Your task to perform on an android device: turn off data saver in the chrome app Image 0: 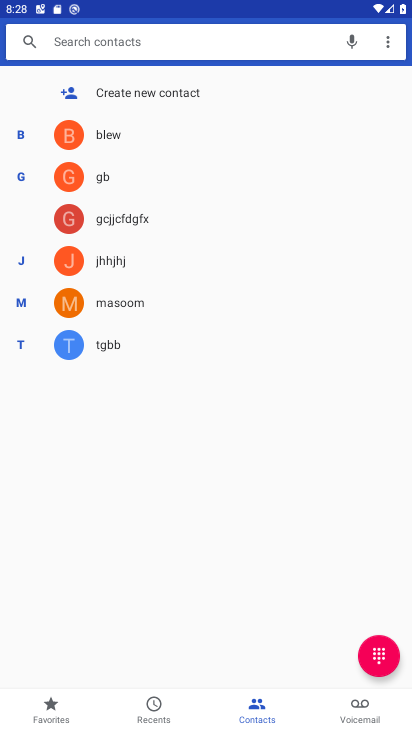
Step 0: press home button
Your task to perform on an android device: turn off data saver in the chrome app Image 1: 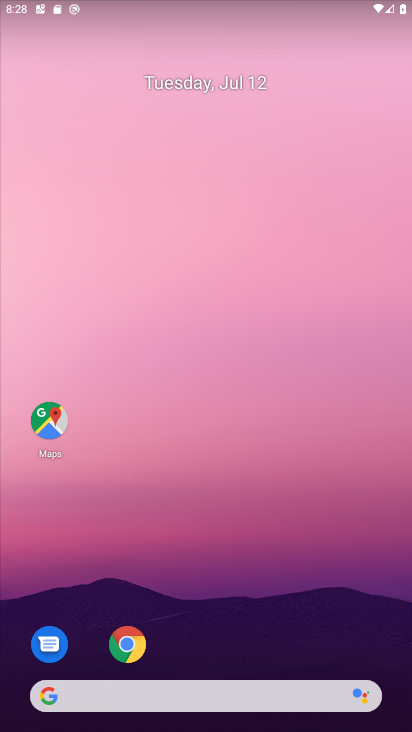
Step 1: drag from (380, 230) to (344, 94)
Your task to perform on an android device: turn off data saver in the chrome app Image 2: 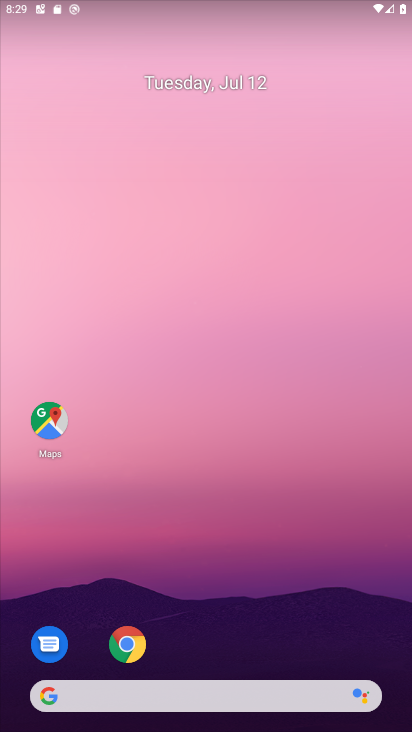
Step 2: drag from (177, 560) to (205, 171)
Your task to perform on an android device: turn off data saver in the chrome app Image 3: 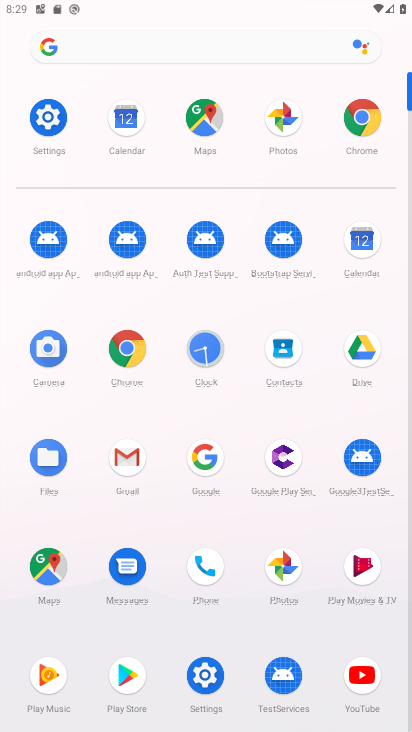
Step 3: click (373, 121)
Your task to perform on an android device: turn off data saver in the chrome app Image 4: 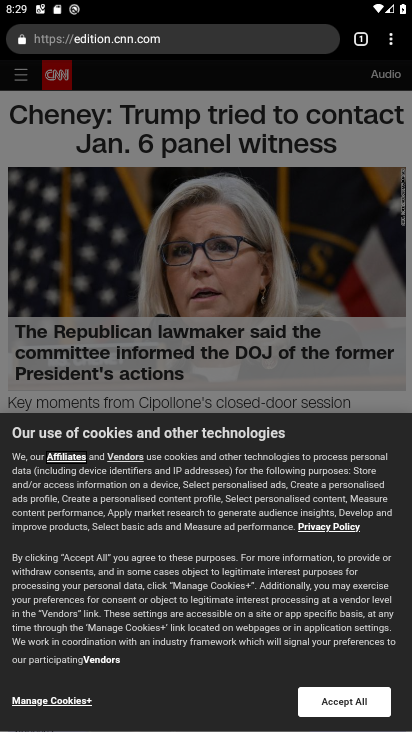
Step 4: drag from (392, 40) to (241, 423)
Your task to perform on an android device: turn off data saver in the chrome app Image 5: 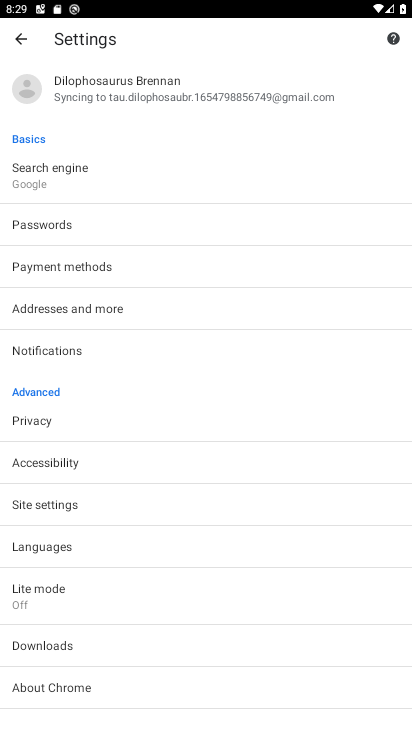
Step 5: click (69, 597)
Your task to perform on an android device: turn off data saver in the chrome app Image 6: 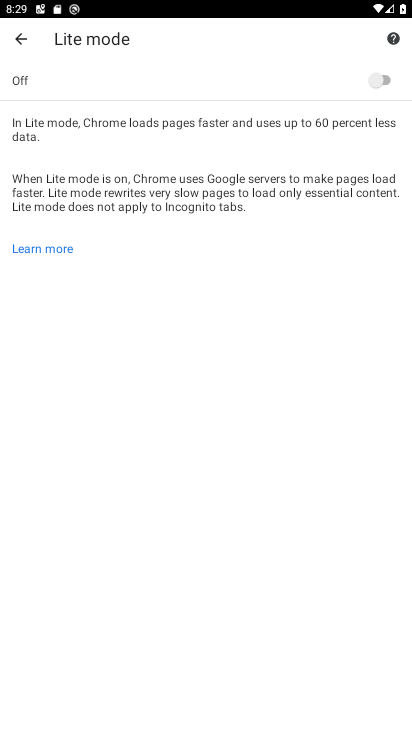
Step 6: task complete